Your task to perform on an android device: add a contact Image 0: 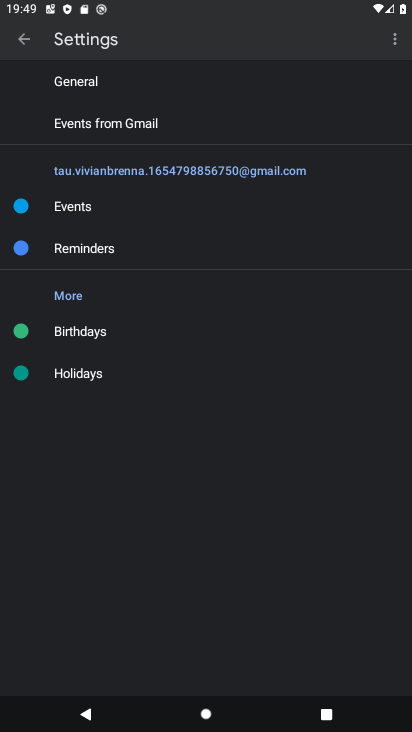
Step 0: press home button
Your task to perform on an android device: add a contact Image 1: 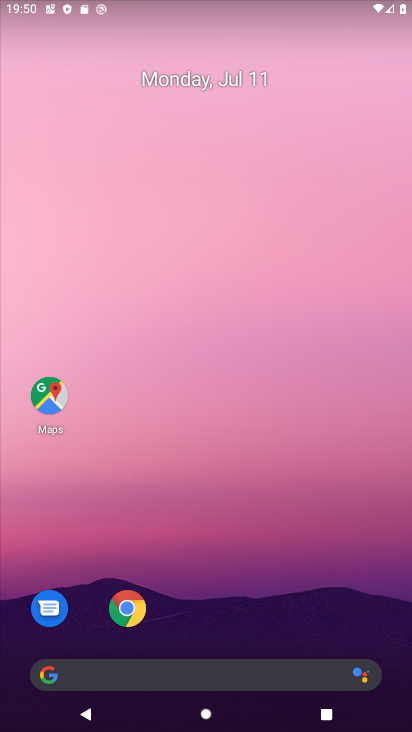
Step 1: drag from (262, 609) to (160, 97)
Your task to perform on an android device: add a contact Image 2: 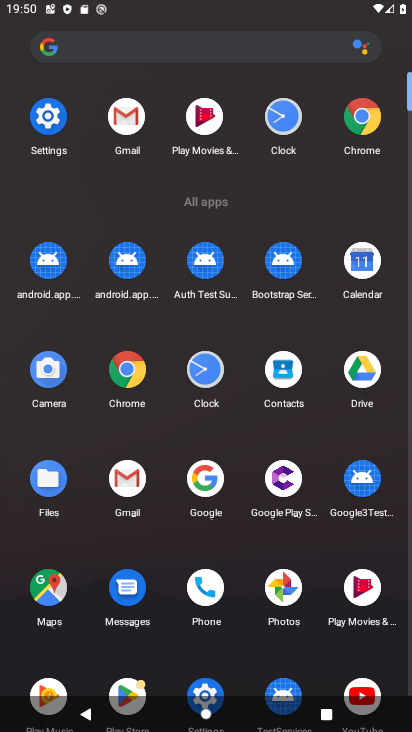
Step 2: click (266, 394)
Your task to perform on an android device: add a contact Image 3: 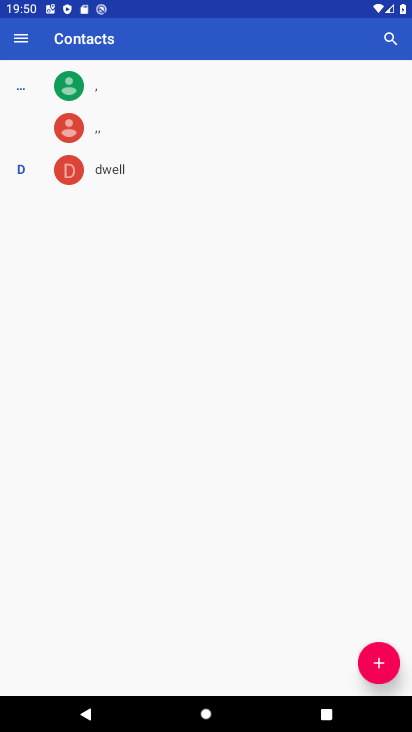
Step 3: click (383, 677)
Your task to perform on an android device: add a contact Image 4: 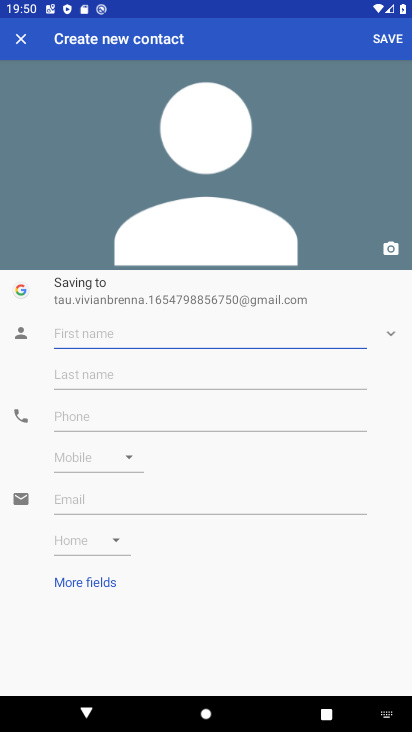
Step 4: click (136, 252)
Your task to perform on an android device: add a contact Image 5: 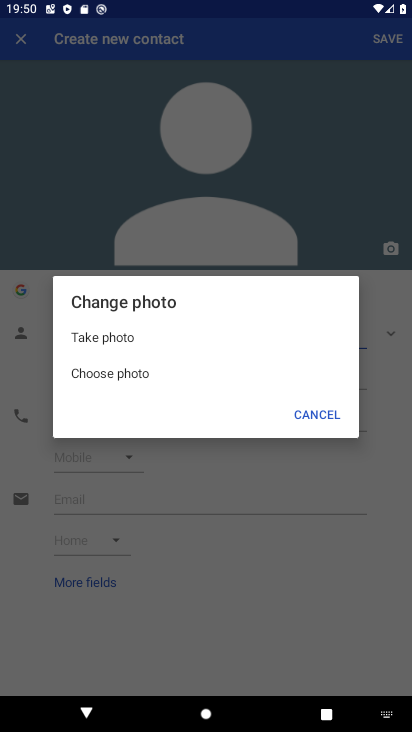
Step 5: type "kjk"
Your task to perform on an android device: add a contact Image 6: 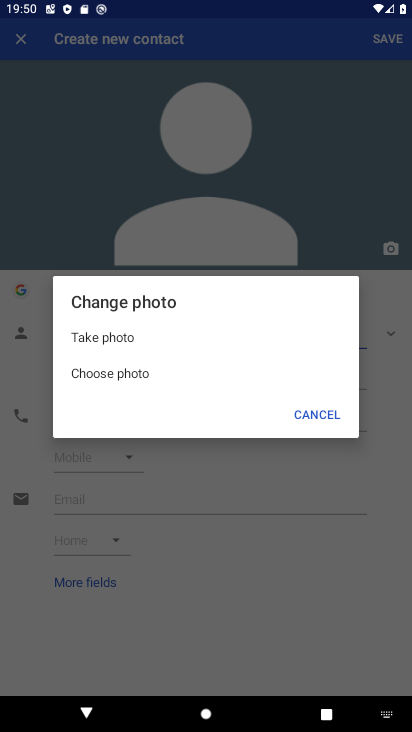
Step 6: click (307, 412)
Your task to perform on an android device: add a contact Image 7: 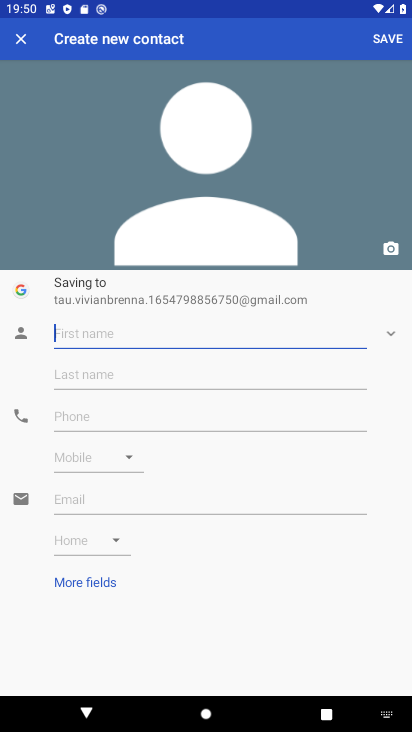
Step 7: type "jkbkj"
Your task to perform on an android device: add a contact Image 8: 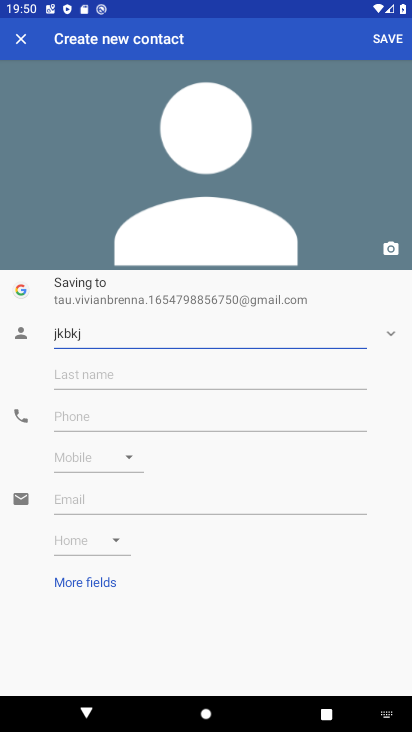
Step 8: click (364, 380)
Your task to perform on an android device: add a contact Image 9: 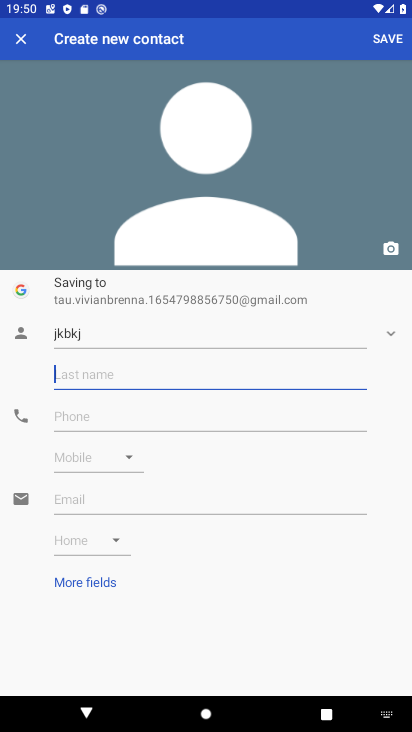
Step 9: type "jbl,l"
Your task to perform on an android device: add a contact Image 10: 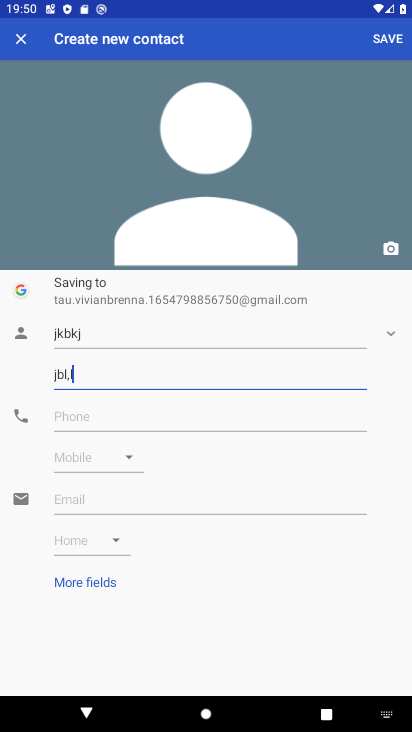
Step 10: click (123, 414)
Your task to perform on an android device: add a contact Image 11: 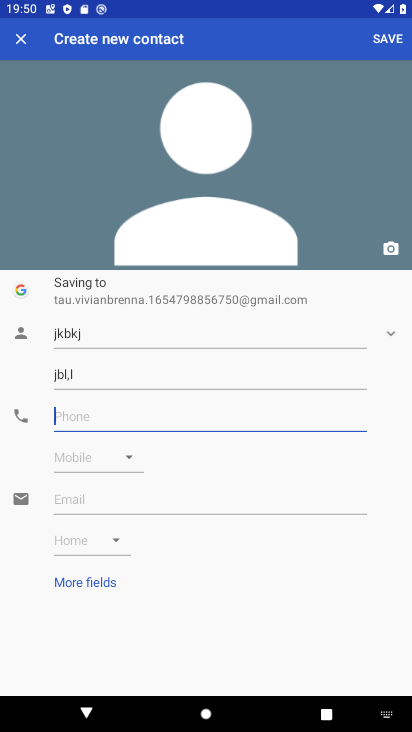
Step 11: type "879768574"
Your task to perform on an android device: add a contact Image 12: 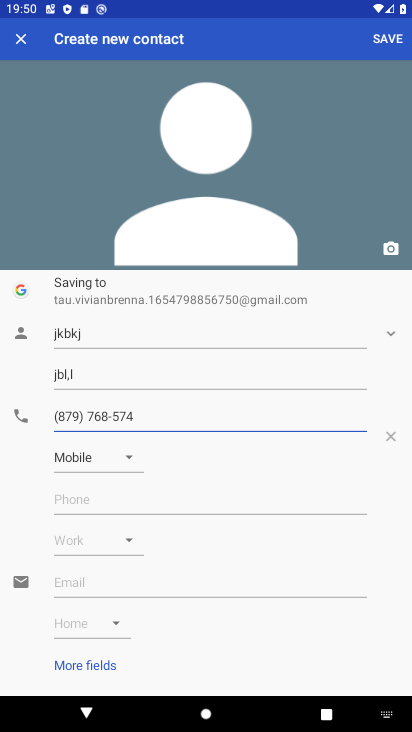
Step 12: click (395, 49)
Your task to perform on an android device: add a contact Image 13: 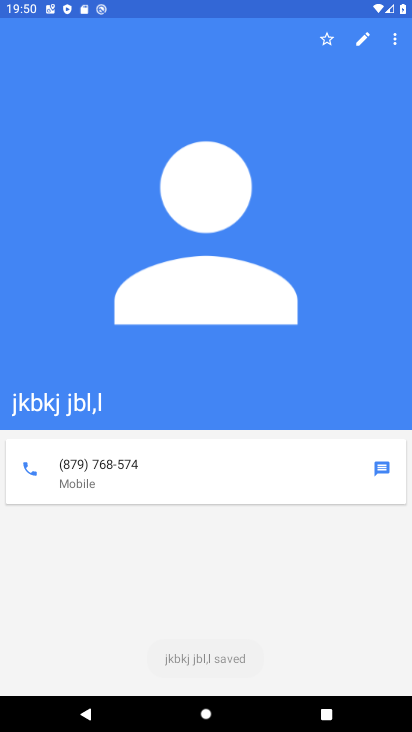
Step 13: task complete